Your task to perform on an android device: stop showing notifications on the lock screen Image 0: 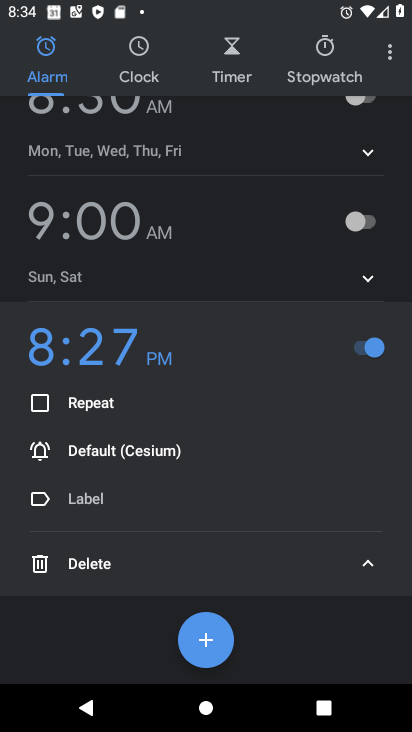
Step 0: press home button
Your task to perform on an android device: stop showing notifications on the lock screen Image 1: 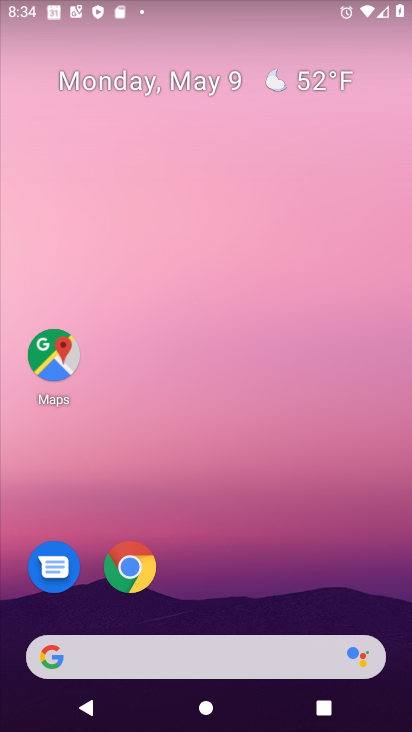
Step 1: drag from (277, 527) to (295, 172)
Your task to perform on an android device: stop showing notifications on the lock screen Image 2: 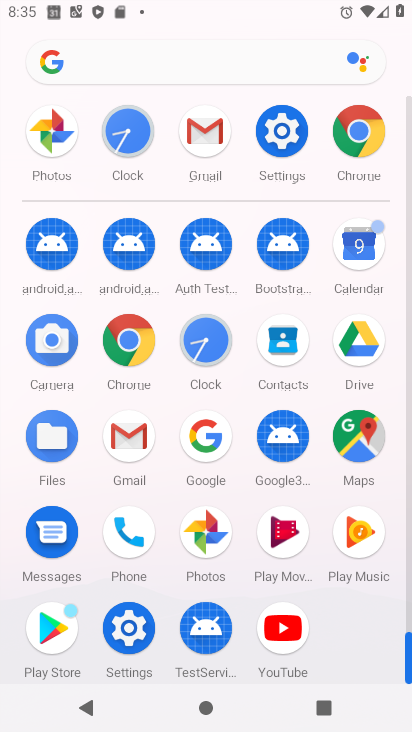
Step 2: click (303, 135)
Your task to perform on an android device: stop showing notifications on the lock screen Image 3: 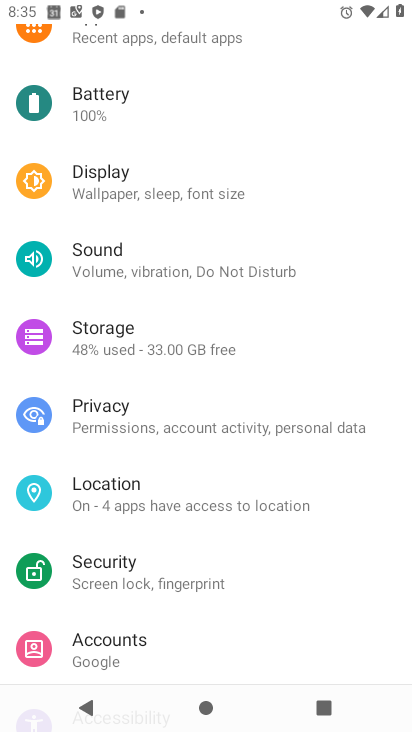
Step 3: drag from (232, 137) to (228, 392)
Your task to perform on an android device: stop showing notifications on the lock screen Image 4: 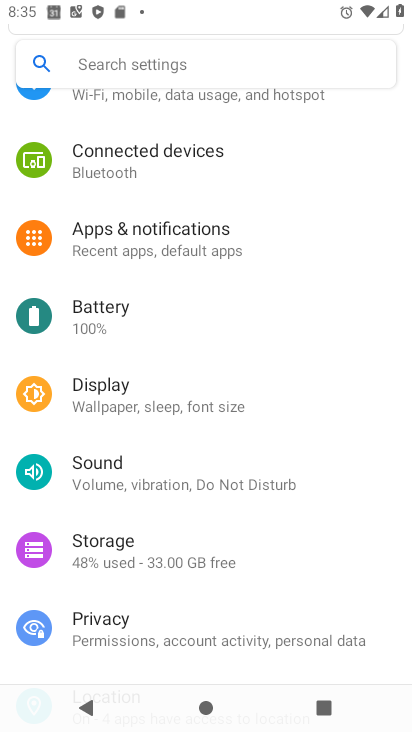
Step 4: click (199, 234)
Your task to perform on an android device: stop showing notifications on the lock screen Image 5: 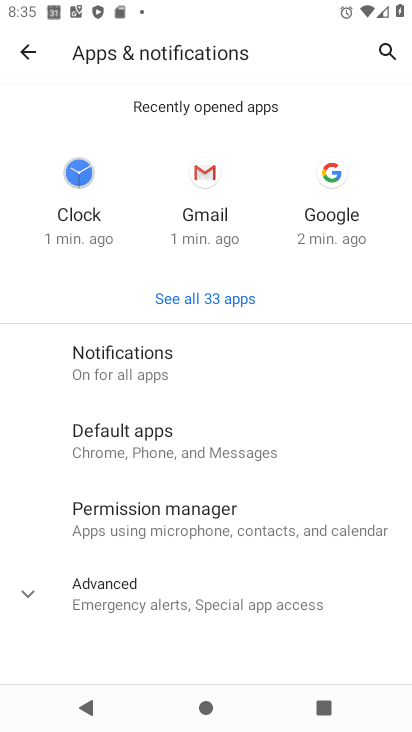
Step 5: click (164, 360)
Your task to perform on an android device: stop showing notifications on the lock screen Image 6: 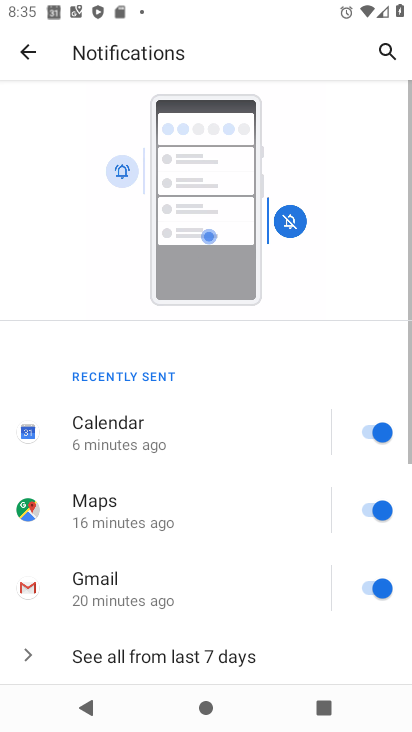
Step 6: drag from (193, 624) to (291, 210)
Your task to perform on an android device: stop showing notifications on the lock screen Image 7: 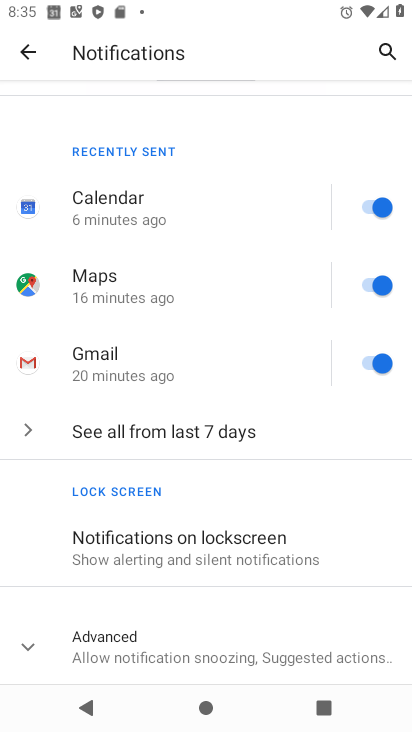
Step 7: click (239, 526)
Your task to perform on an android device: stop showing notifications on the lock screen Image 8: 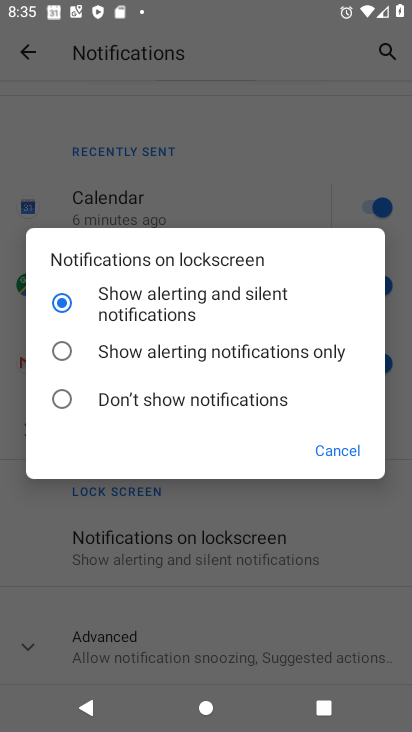
Step 8: task complete